Your task to perform on an android device: set the timer Image 0: 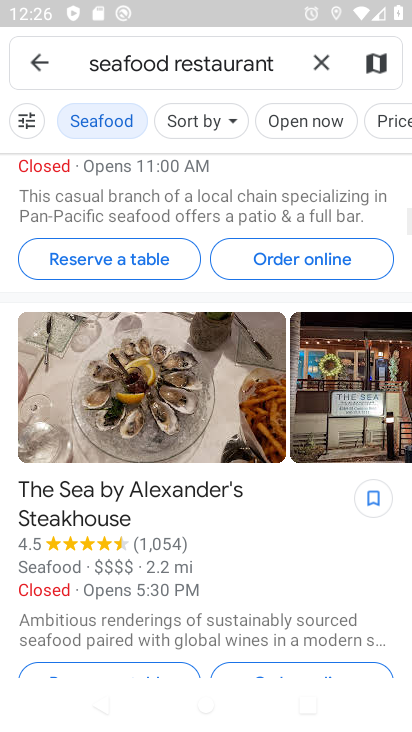
Step 0: drag from (232, 391) to (249, 246)
Your task to perform on an android device: set the timer Image 1: 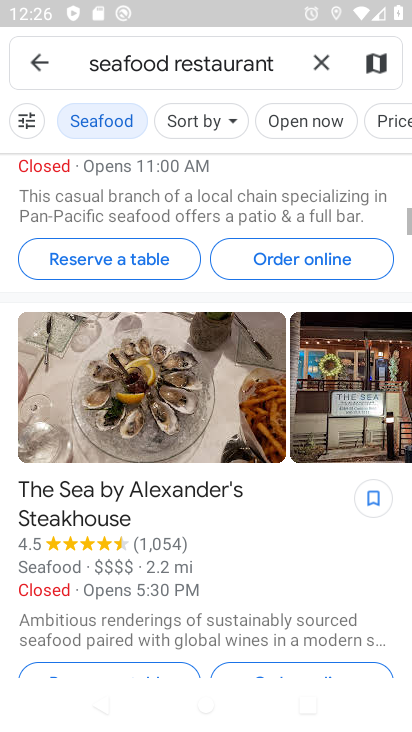
Step 1: drag from (230, 206) to (297, 670)
Your task to perform on an android device: set the timer Image 2: 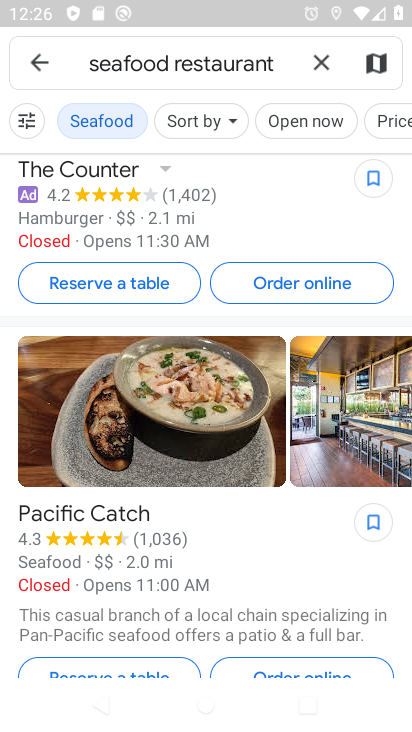
Step 2: press home button
Your task to perform on an android device: set the timer Image 3: 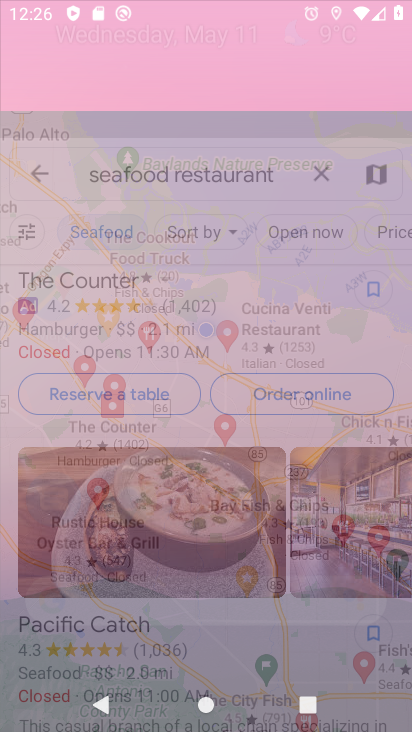
Step 3: drag from (199, 582) to (304, 175)
Your task to perform on an android device: set the timer Image 4: 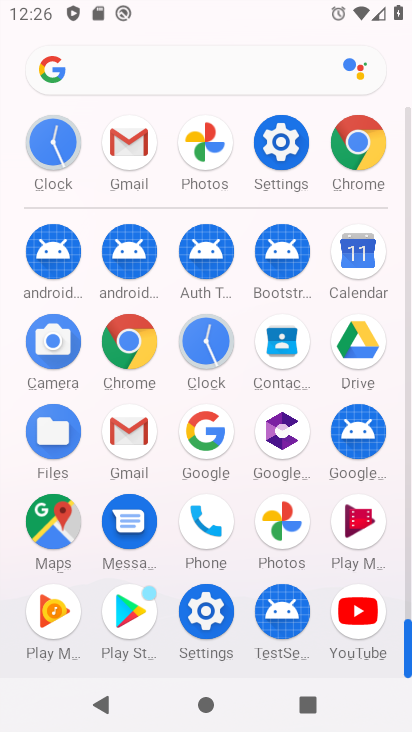
Step 4: click (206, 349)
Your task to perform on an android device: set the timer Image 5: 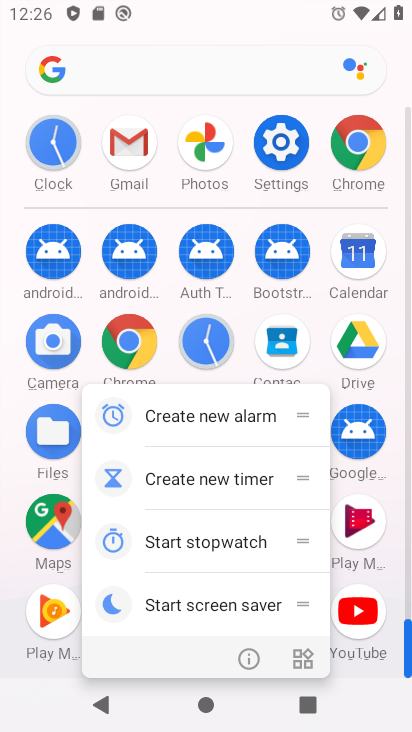
Step 5: click (250, 671)
Your task to perform on an android device: set the timer Image 6: 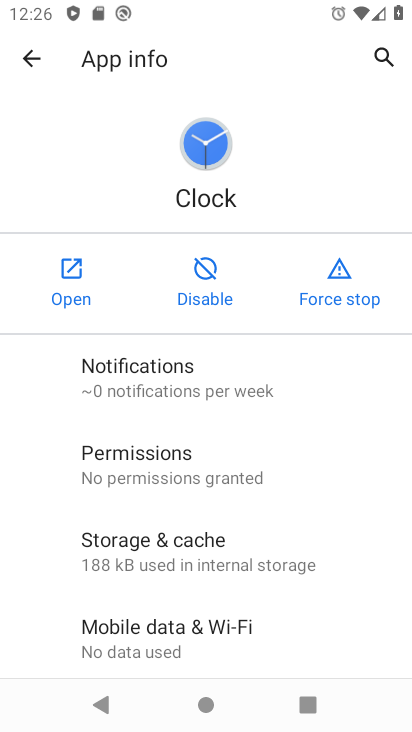
Step 6: click (64, 278)
Your task to perform on an android device: set the timer Image 7: 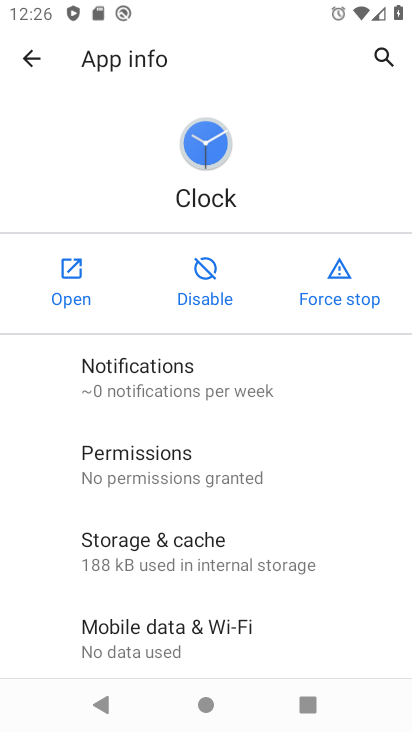
Step 7: click (64, 278)
Your task to perform on an android device: set the timer Image 8: 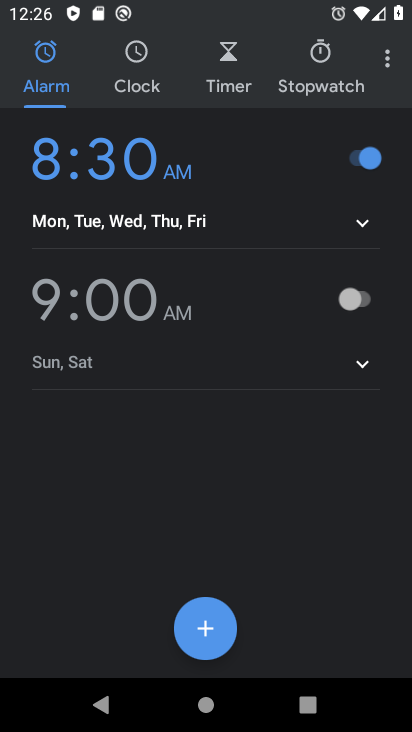
Step 8: click (234, 69)
Your task to perform on an android device: set the timer Image 9: 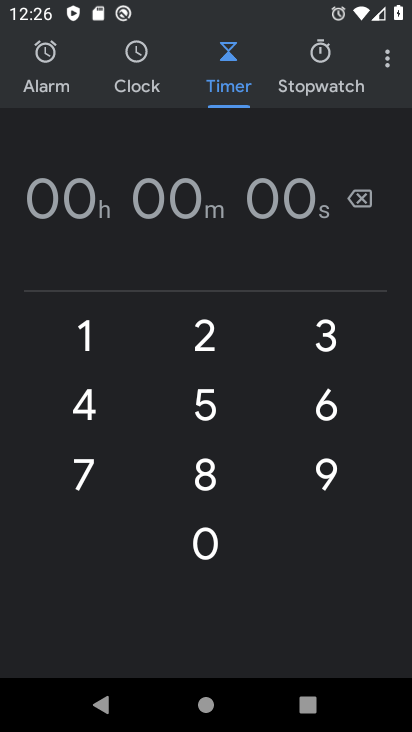
Step 9: click (208, 336)
Your task to perform on an android device: set the timer Image 10: 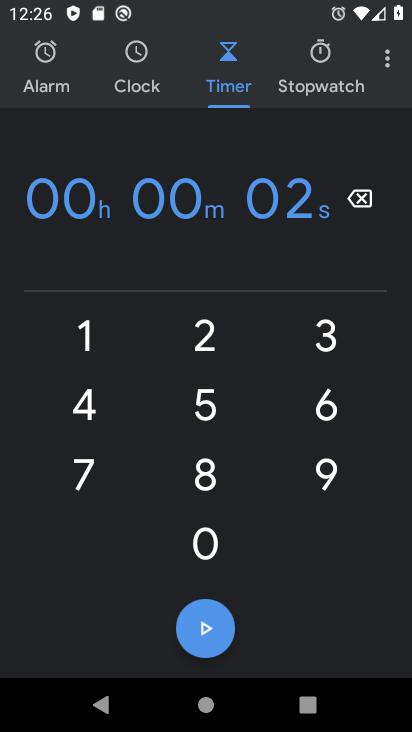
Step 10: click (343, 339)
Your task to perform on an android device: set the timer Image 11: 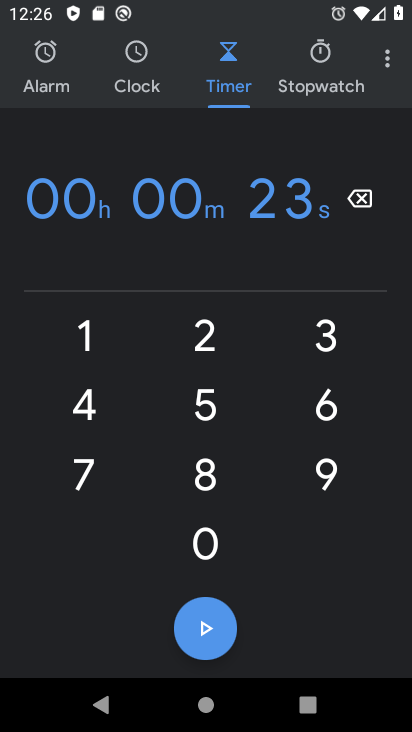
Step 11: click (196, 611)
Your task to perform on an android device: set the timer Image 12: 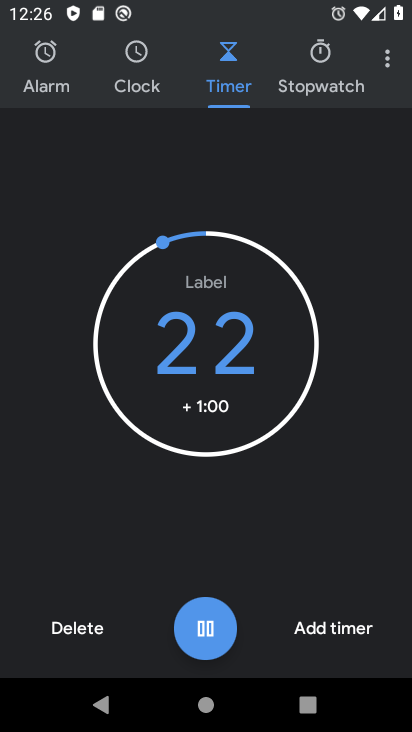
Step 12: task complete